Your task to perform on an android device: Open privacy settings Image 0: 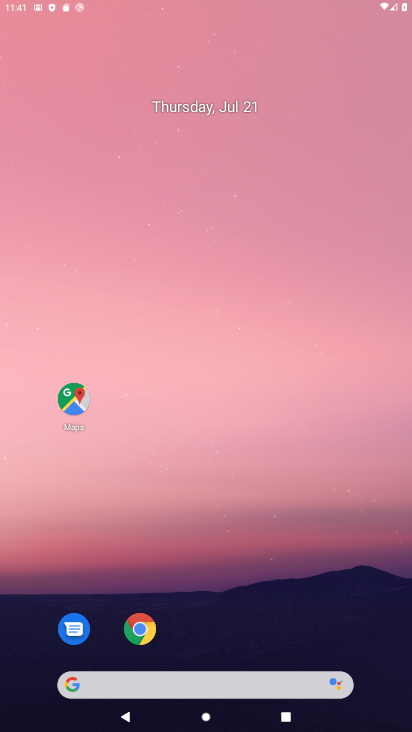
Step 0: click (15, 45)
Your task to perform on an android device: Open privacy settings Image 1: 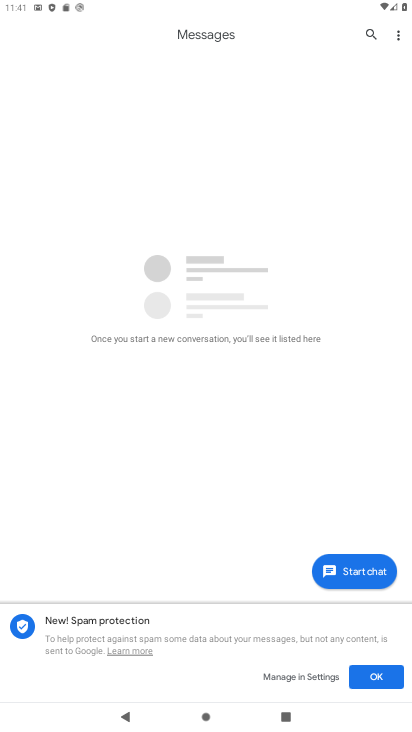
Step 1: press back button
Your task to perform on an android device: Open privacy settings Image 2: 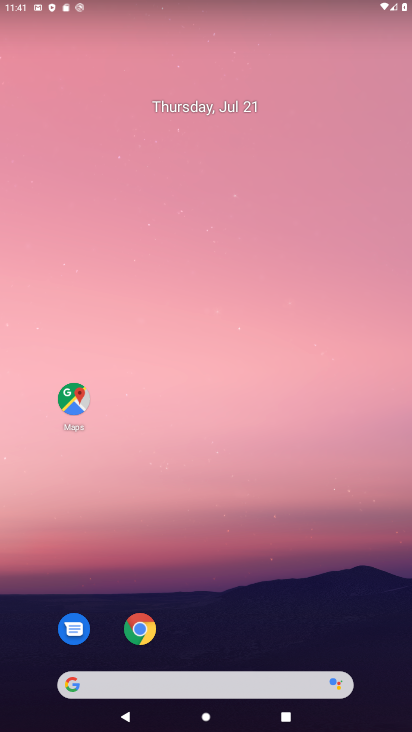
Step 2: drag from (207, 556) to (172, 197)
Your task to perform on an android device: Open privacy settings Image 3: 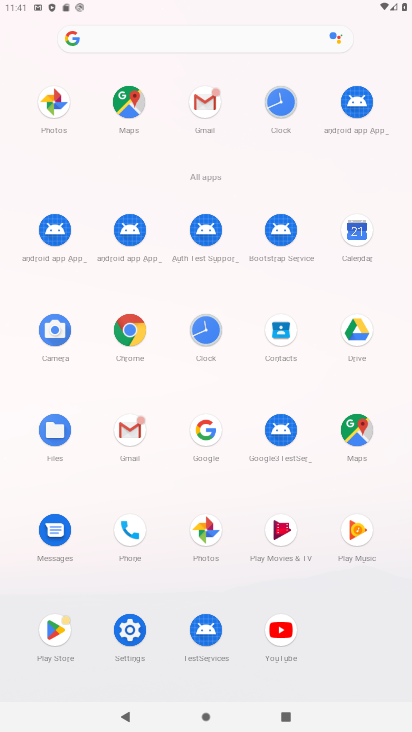
Step 3: drag from (251, 462) to (250, 177)
Your task to perform on an android device: Open privacy settings Image 4: 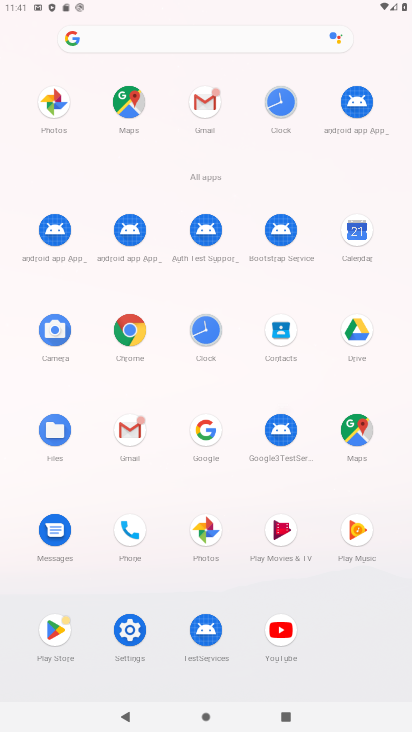
Step 4: drag from (247, 346) to (238, 181)
Your task to perform on an android device: Open privacy settings Image 5: 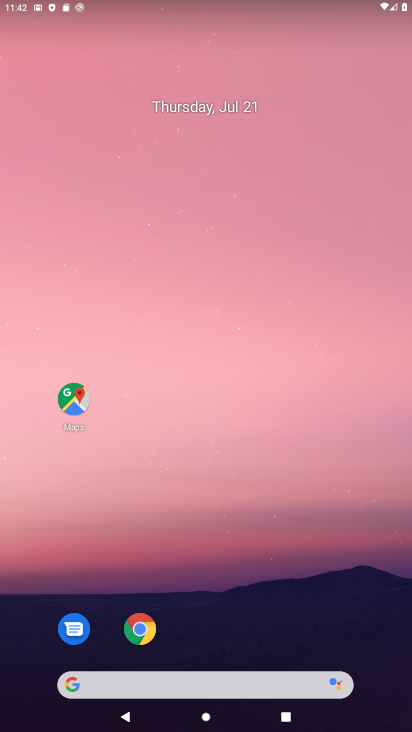
Step 5: drag from (203, 472) to (207, 162)
Your task to perform on an android device: Open privacy settings Image 6: 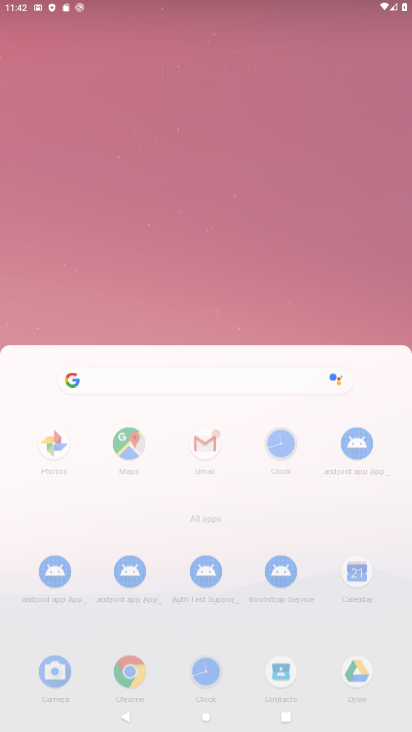
Step 6: drag from (207, 477) to (189, 160)
Your task to perform on an android device: Open privacy settings Image 7: 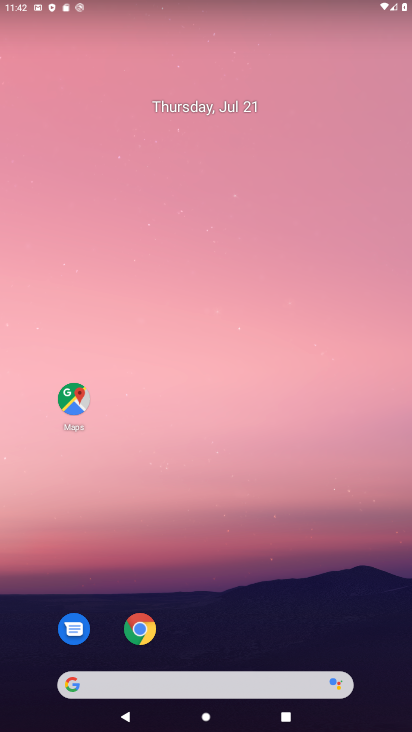
Step 7: drag from (191, 466) to (182, 179)
Your task to perform on an android device: Open privacy settings Image 8: 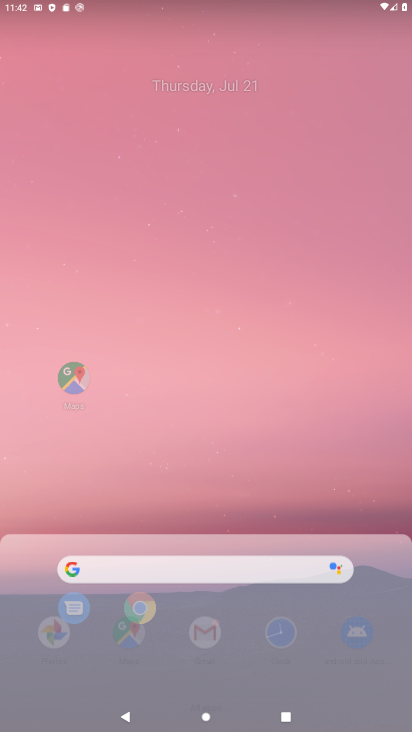
Step 8: drag from (225, 615) to (225, 183)
Your task to perform on an android device: Open privacy settings Image 9: 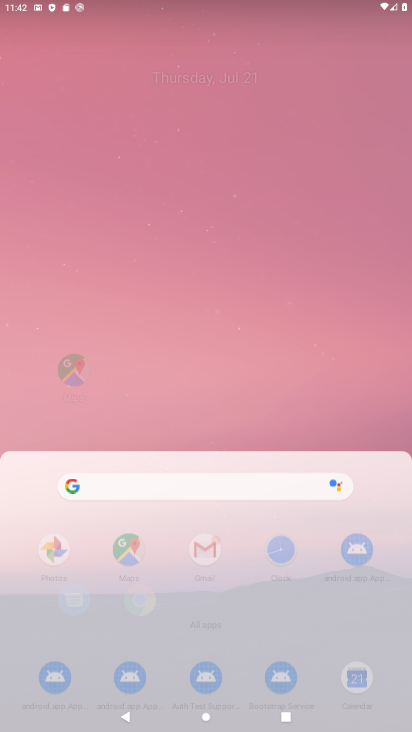
Step 9: drag from (229, 553) to (222, 204)
Your task to perform on an android device: Open privacy settings Image 10: 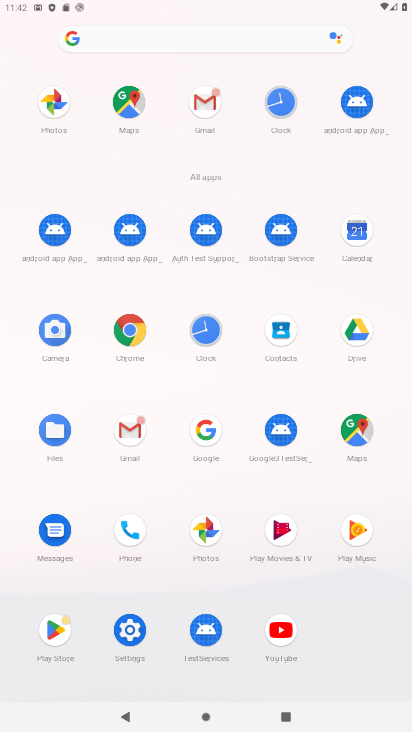
Step 10: drag from (250, 586) to (229, 208)
Your task to perform on an android device: Open privacy settings Image 11: 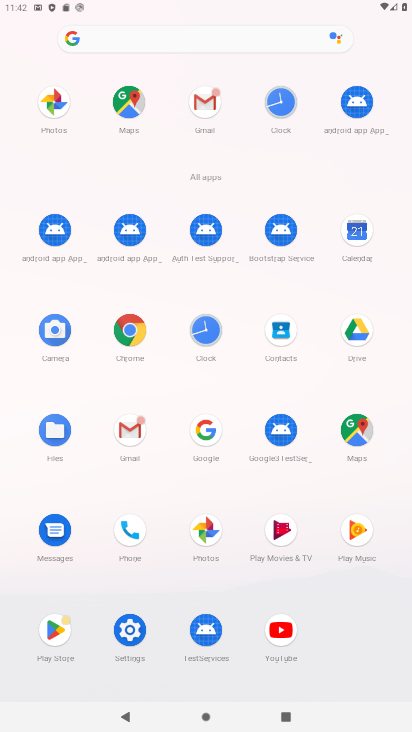
Step 11: click (112, 624)
Your task to perform on an android device: Open privacy settings Image 12: 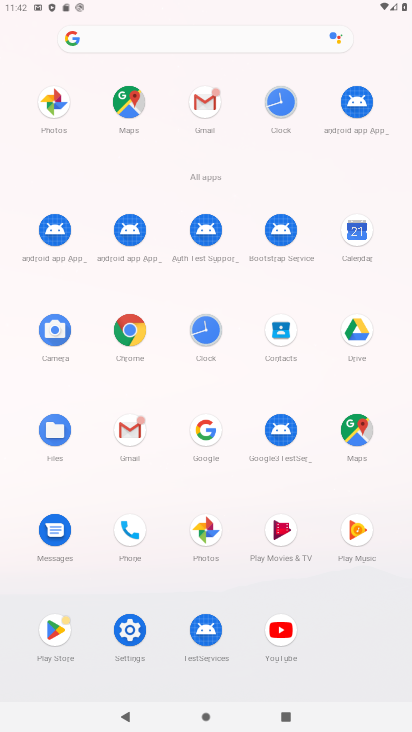
Step 12: click (111, 623)
Your task to perform on an android device: Open privacy settings Image 13: 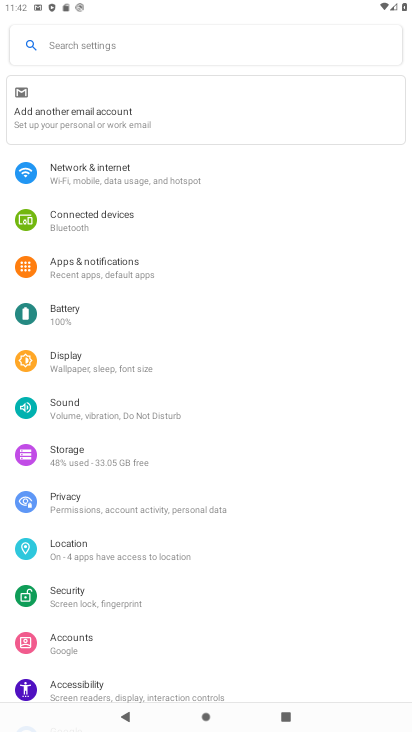
Step 13: click (66, 499)
Your task to perform on an android device: Open privacy settings Image 14: 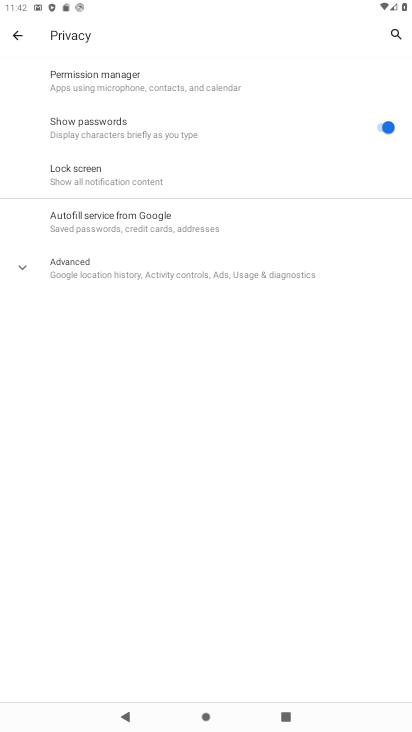
Step 14: task complete